Your task to perform on an android device: Open settings Image 0: 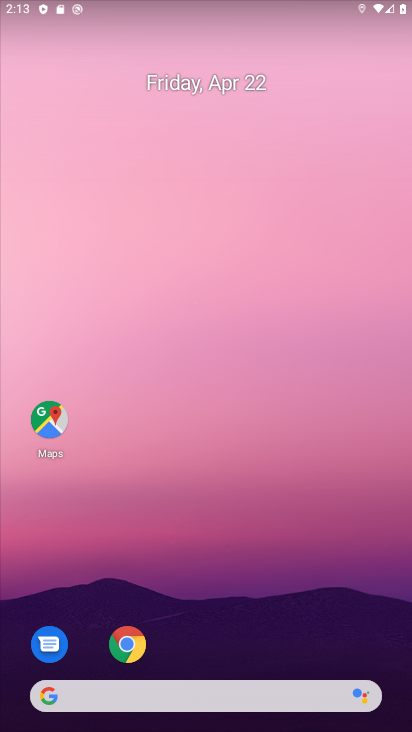
Step 0: drag from (243, 383) to (256, 199)
Your task to perform on an android device: Open settings Image 1: 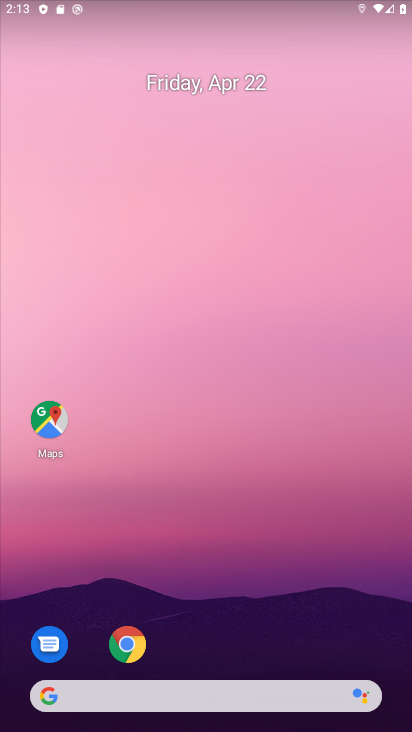
Step 1: drag from (225, 566) to (197, 164)
Your task to perform on an android device: Open settings Image 2: 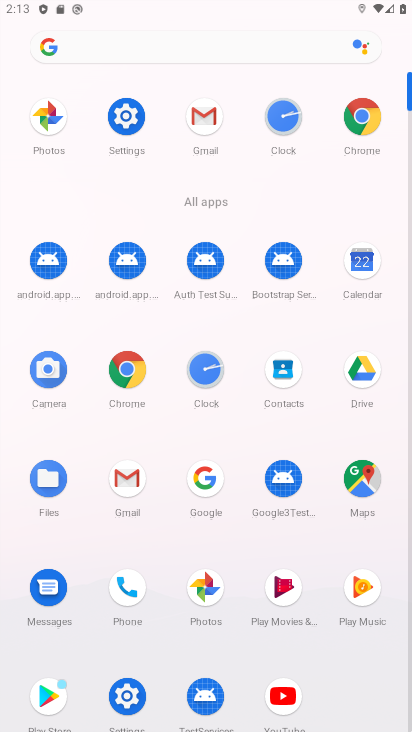
Step 2: click (134, 694)
Your task to perform on an android device: Open settings Image 3: 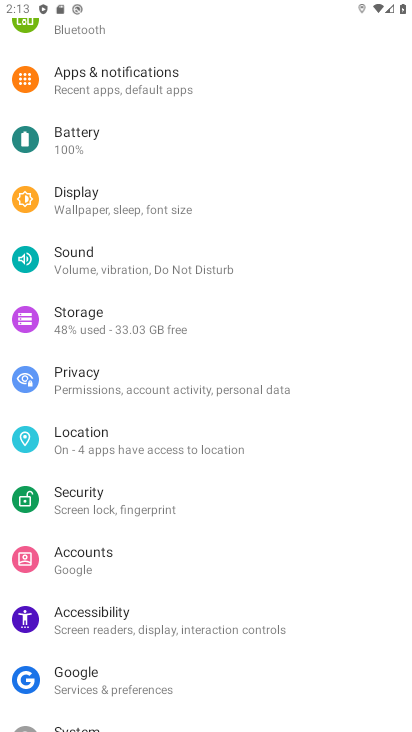
Step 3: task complete